Your task to perform on an android device: Go to eBay Image 0: 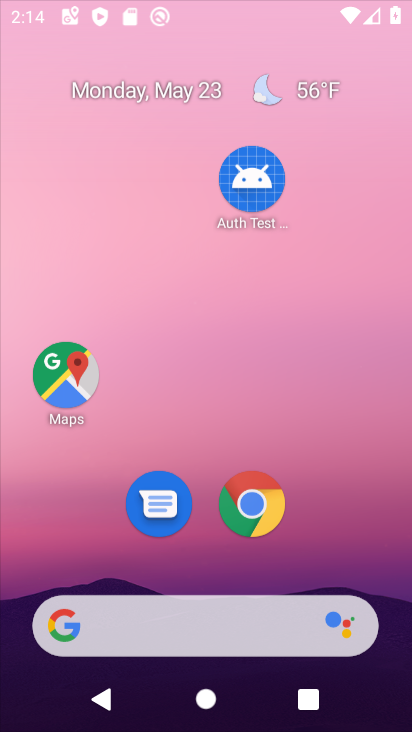
Step 0: click (242, 298)
Your task to perform on an android device: Go to eBay Image 1: 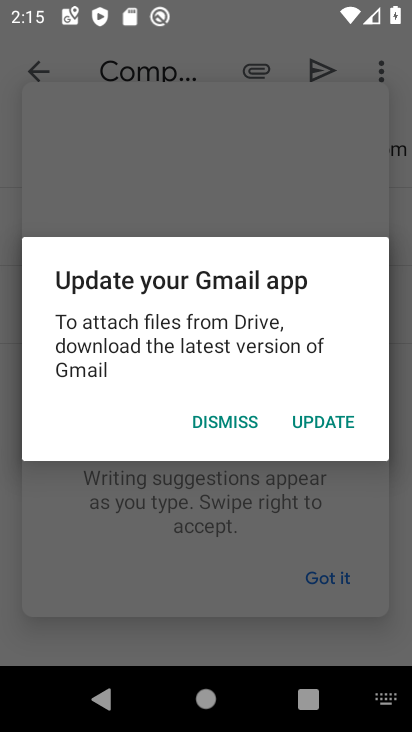
Step 1: click (328, 567)
Your task to perform on an android device: Go to eBay Image 2: 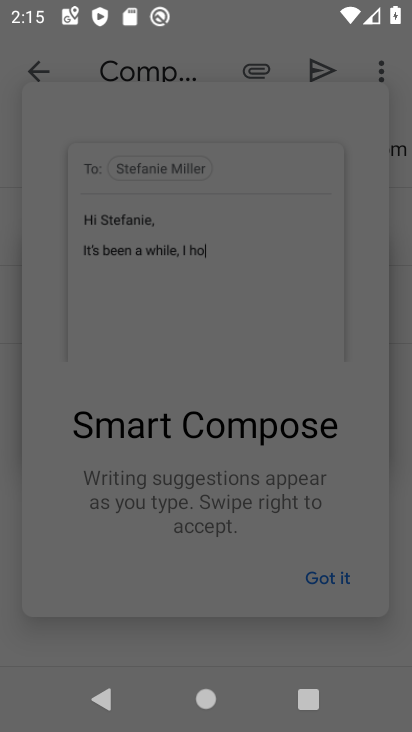
Step 2: click (234, 428)
Your task to perform on an android device: Go to eBay Image 3: 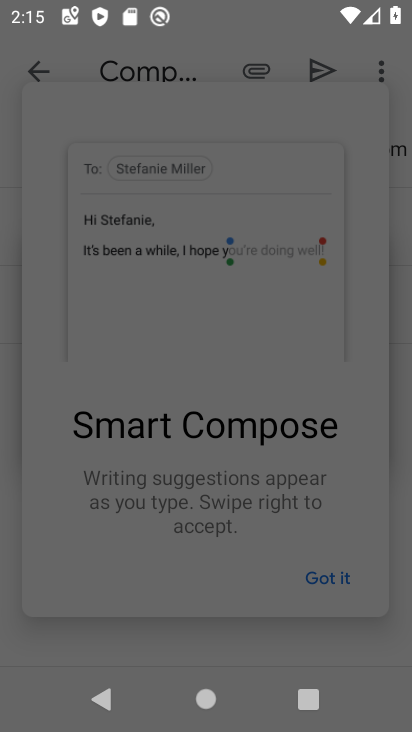
Step 3: click (318, 575)
Your task to perform on an android device: Go to eBay Image 4: 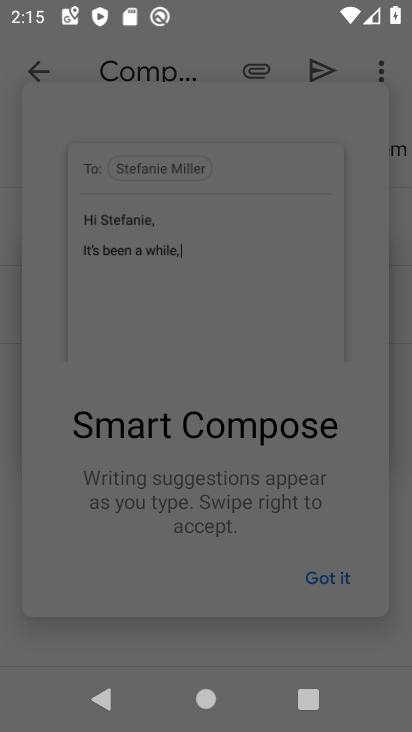
Step 4: click (323, 578)
Your task to perform on an android device: Go to eBay Image 5: 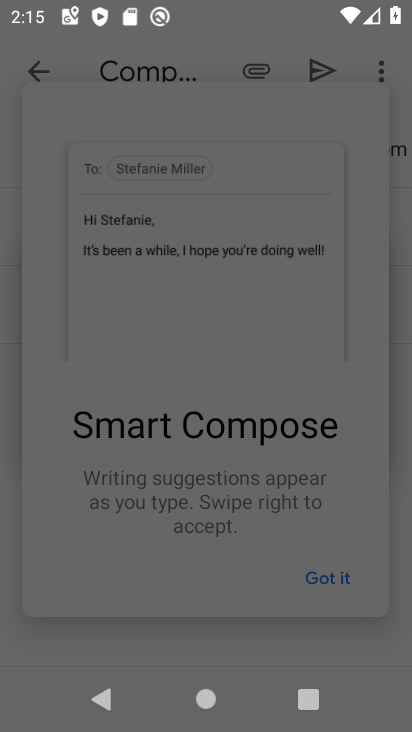
Step 5: press back button
Your task to perform on an android device: Go to eBay Image 6: 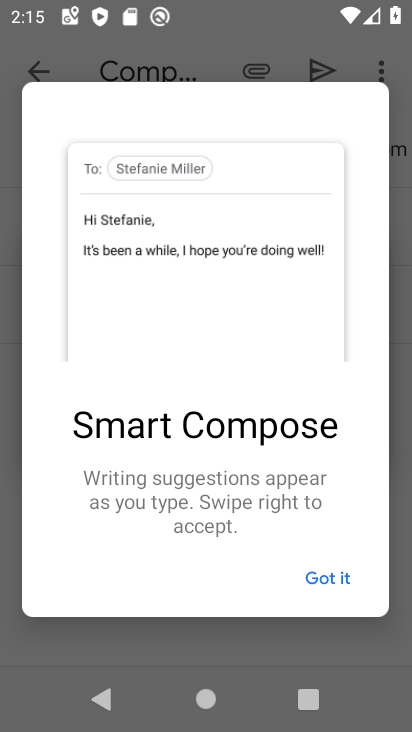
Step 6: press back button
Your task to perform on an android device: Go to eBay Image 7: 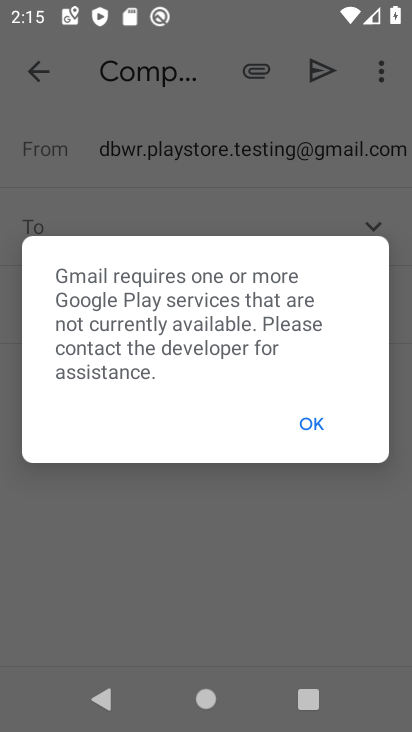
Step 7: press back button
Your task to perform on an android device: Go to eBay Image 8: 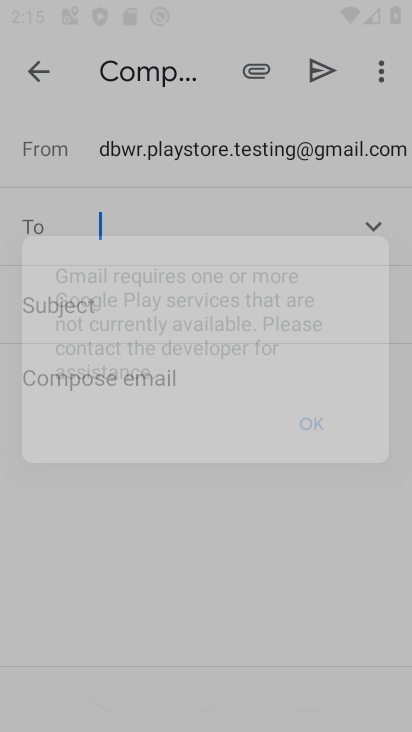
Step 8: press back button
Your task to perform on an android device: Go to eBay Image 9: 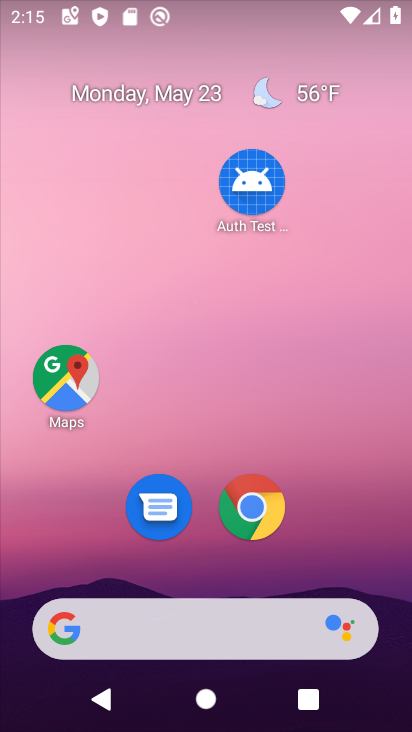
Step 9: press back button
Your task to perform on an android device: Go to eBay Image 10: 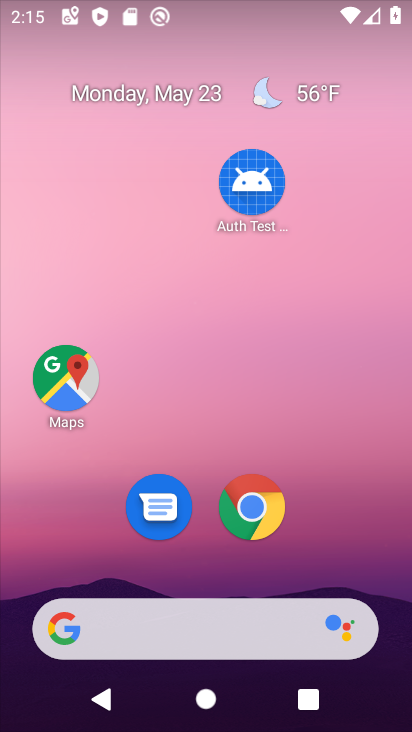
Step 10: press home button
Your task to perform on an android device: Go to eBay Image 11: 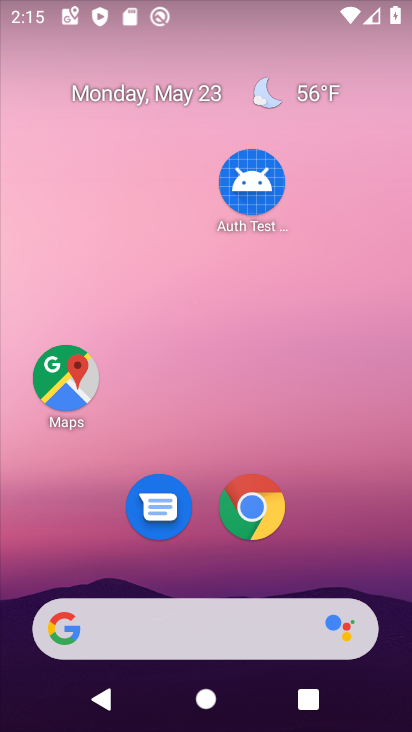
Step 11: press back button
Your task to perform on an android device: Go to eBay Image 12: 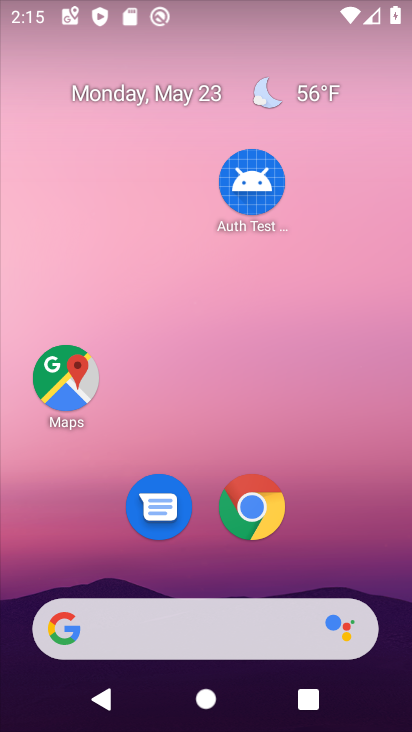
Step 12: drag from (267, 607) to (217, 246)
Your task to perform on an android device: Go to eBay Image 13: 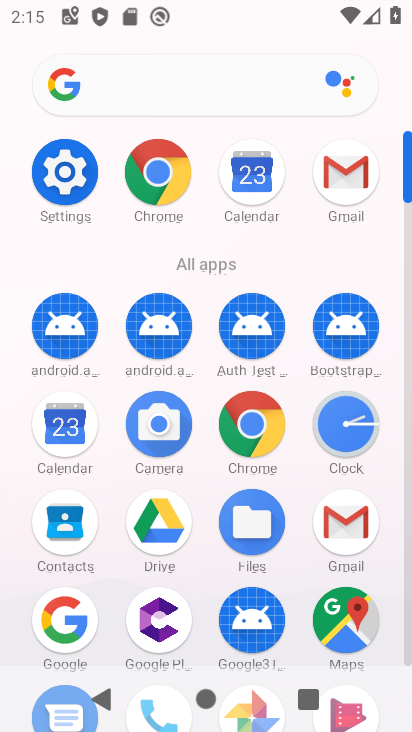
Step 13: click (165, 185)
Your task to perform on an android device: Go to eBay Image 14: 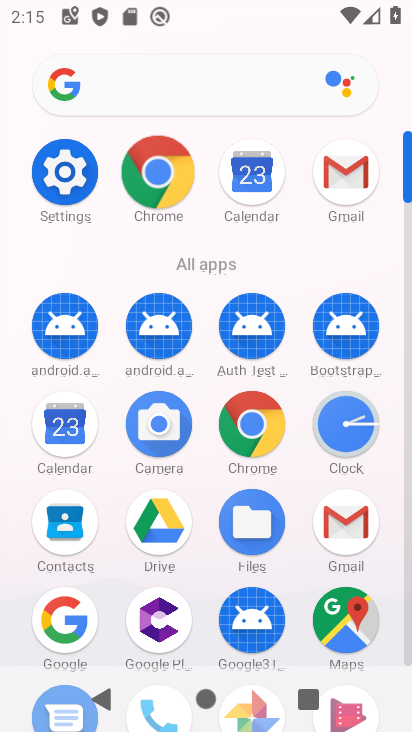
Step 14: click (160, 181)
Your task to perform on an android device: Go to eBay Image 15: 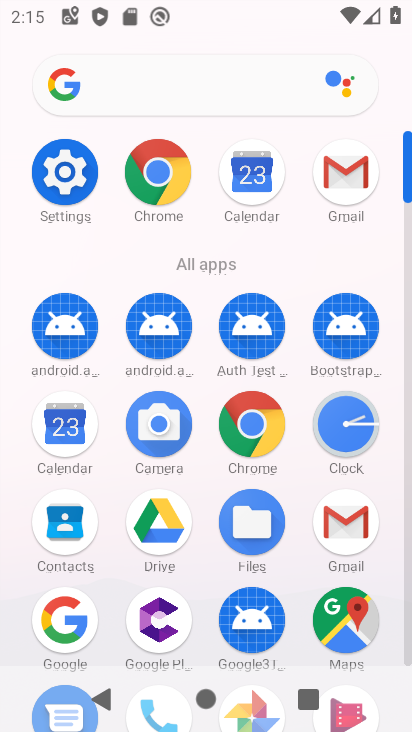
Step 15: click (161, 181)
Your task to perform on an android device: Go to eBay Image 16: 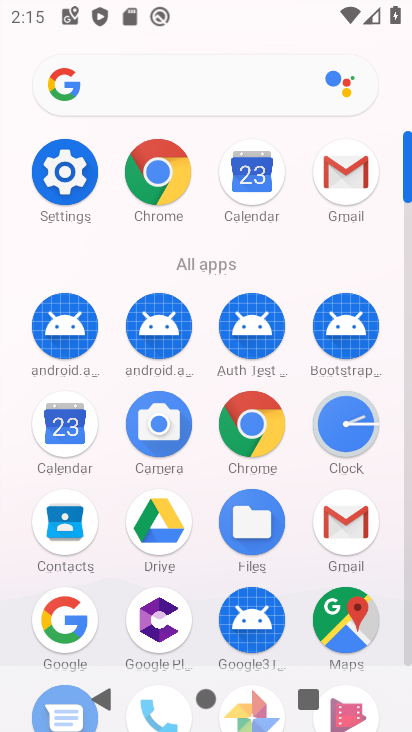
Step 16: click (158, 187)
Your task to perform on an android device: Go to eBay Image 17: 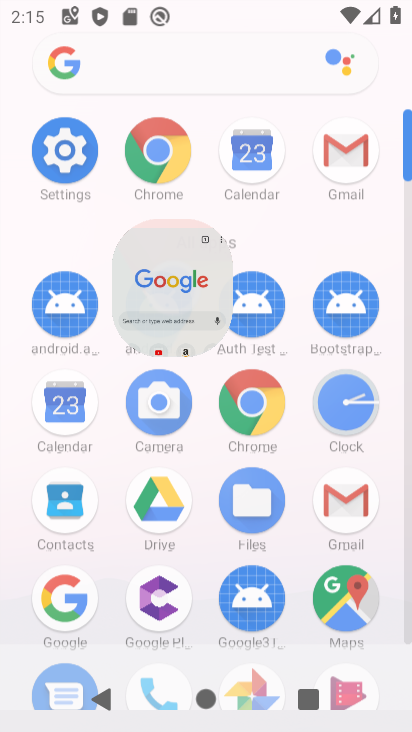
Step 17: click (160, 187)
Your task to perform on an android device: Go to eBay Image 18: 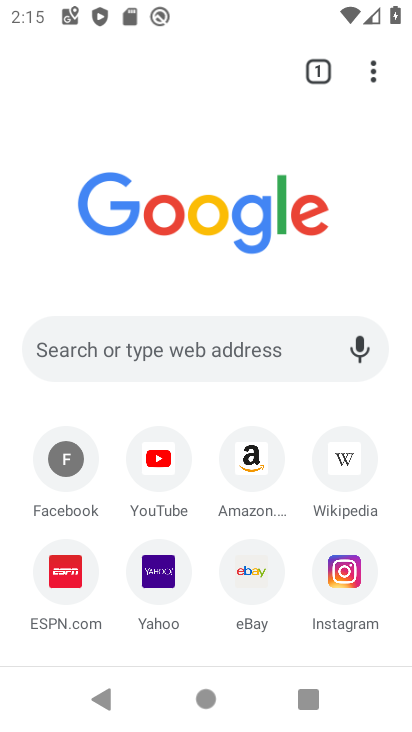
Step 18: click (250, 573)
Your task to perform on an android device: Go to eBay Image 19: 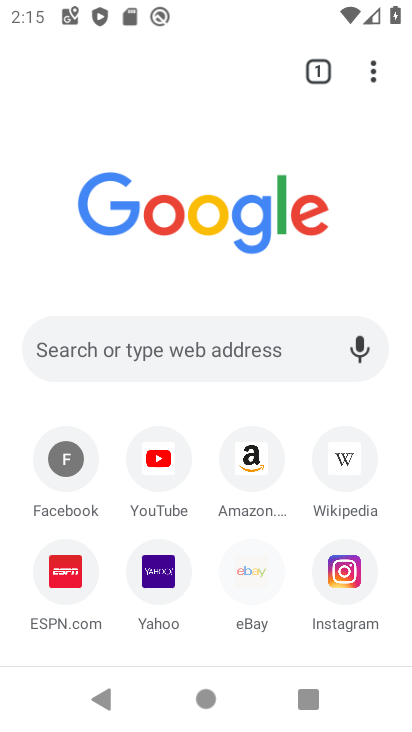
Step 19: click (249, 572)
Your task to perform on an android device: Go to eBay Image 20: 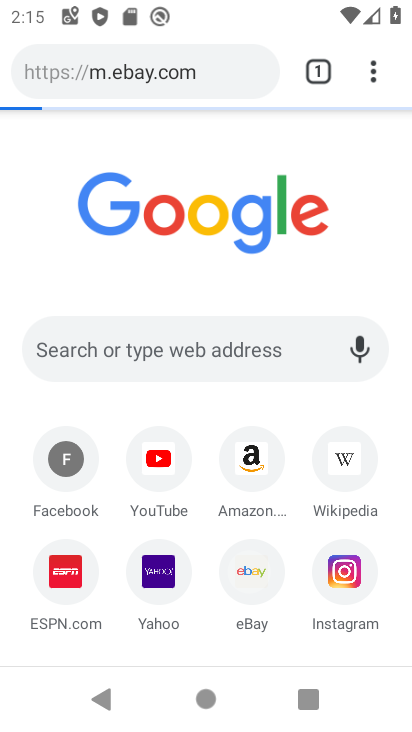
Step 20: click (249, 572)
Your task to perform on an android device: Go to eBay Image 21: 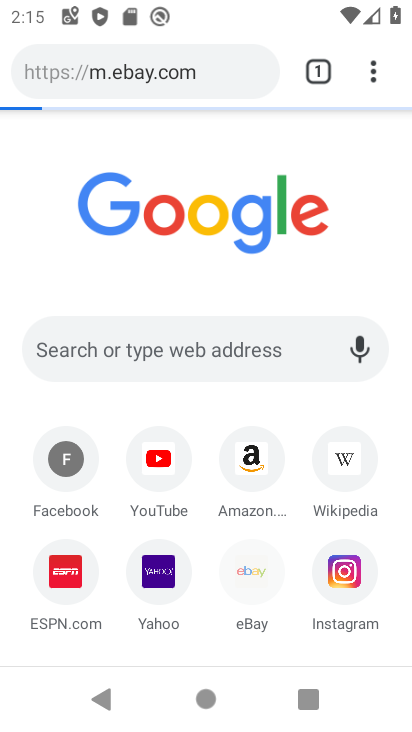
Step 21: click (249, 572)
Your task to perform on an android device: Go to eBay Image 22: 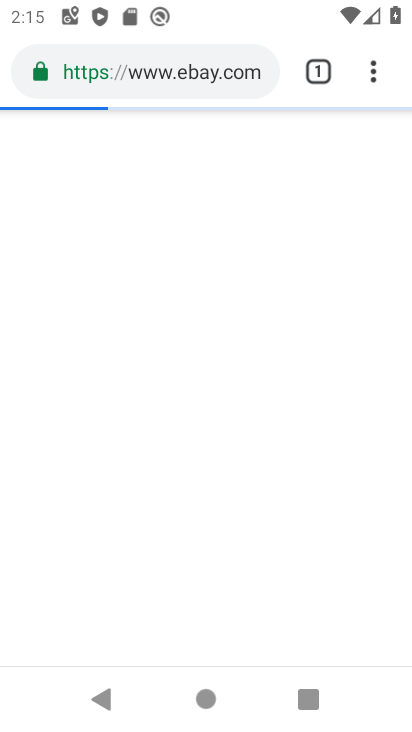
Step 22: click (253, 577)
Your task to perform on an android device: Go to eBay Image 23: 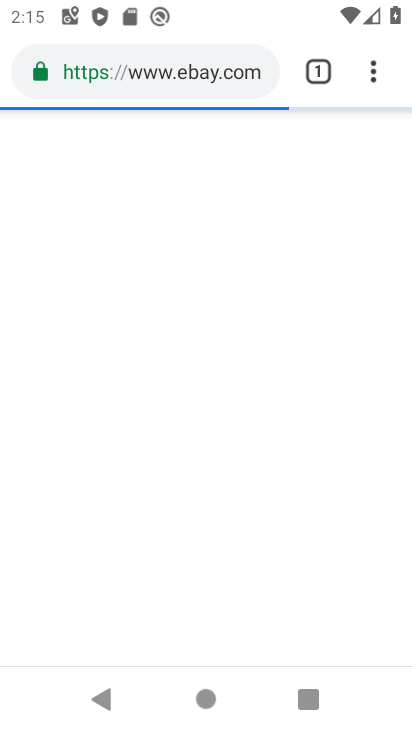
Step 23: click (253, 577)
Your task to perform on an android device: Go to eBay Image 24: 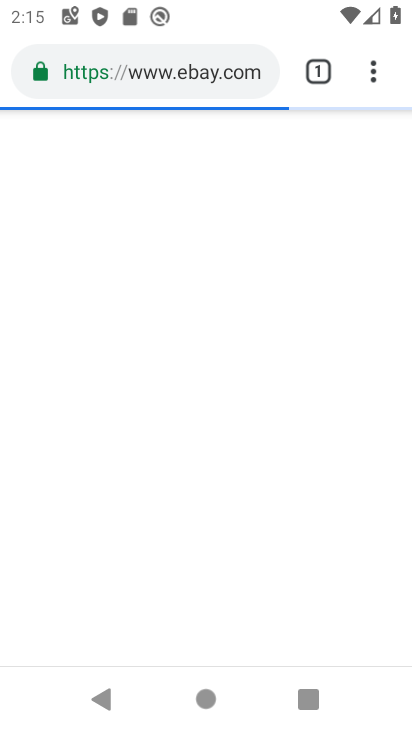
Step 24: click (253, 579)
Your task to perform on an android device: Go to eBay Image 25: 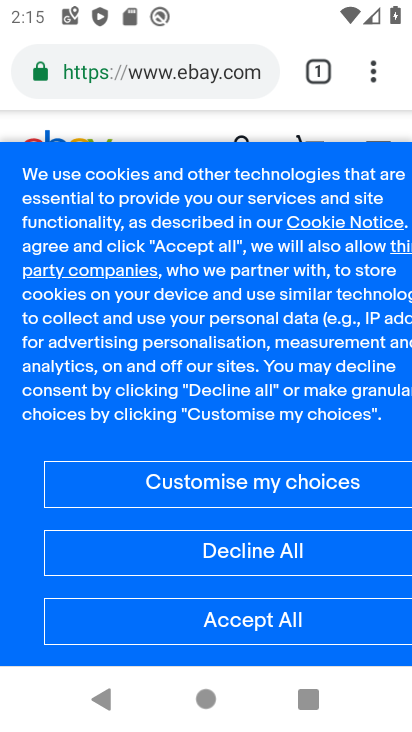
Step 25: task complete